Your task to perform on an android device: set the stopwatch Image 0: 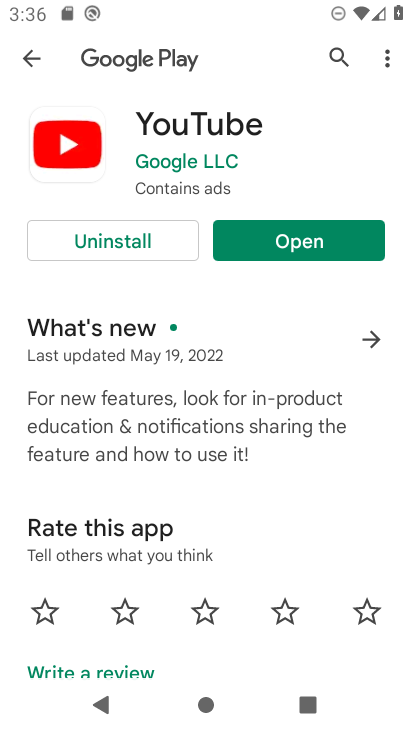
Step 0: press home button
Your task to perform on an android device: set the stopwatch Image 1: 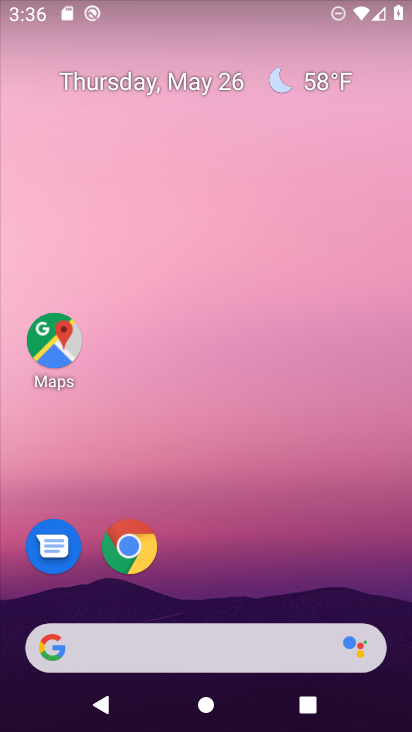
Step 1: drag from (199, 594) to (286, 168)
Your task to perform on an android device: set the stopwatch Image 2: 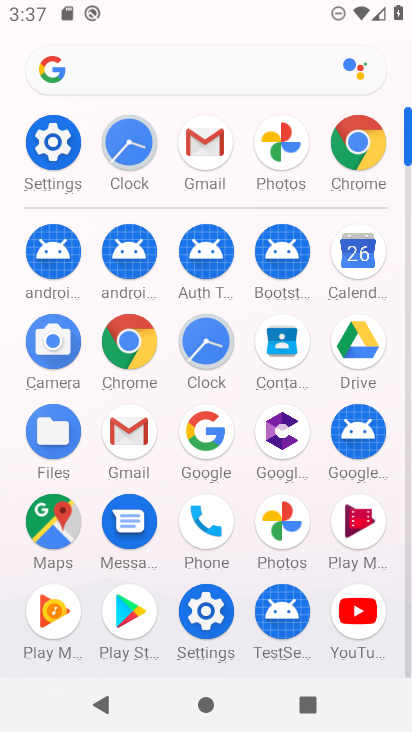
Step 2: click (205, 339)
Your task to perform on an android device: set the stopwatch Image 3: 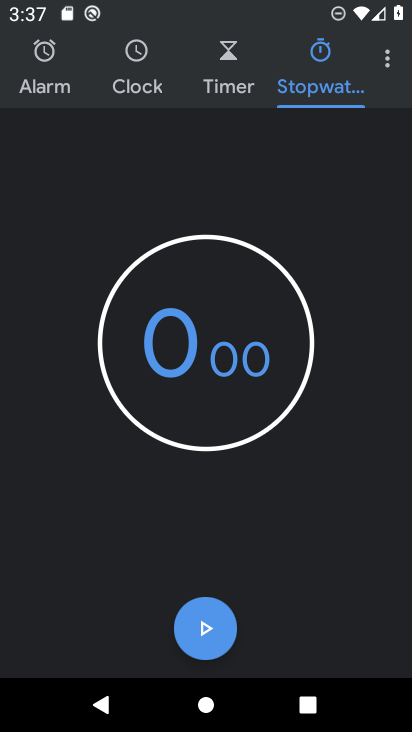
Step 3: click (197, 627)
Your task to perform on an android device: set the stopwatch Image 4: 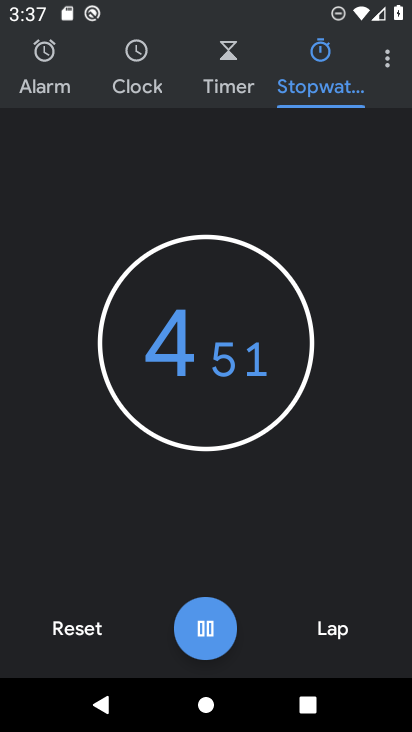
Step 4: task complete